Your task to perform on an android device: delete browsing data in the chrome app Image 0: 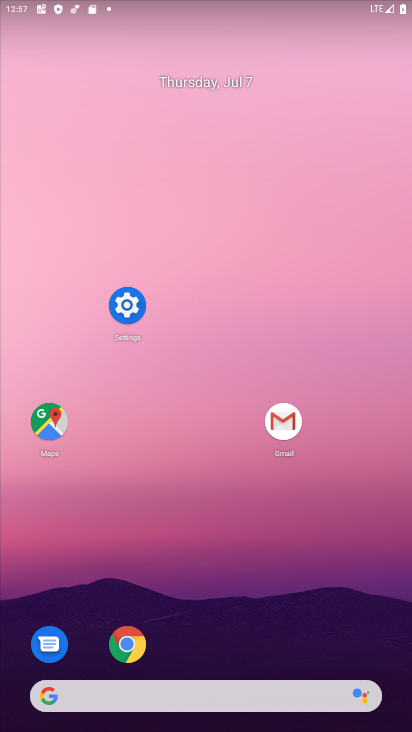
Step 0: click (123, 646)
Your task to perform on an android device: delete browsing data in the chrome app Image 1: 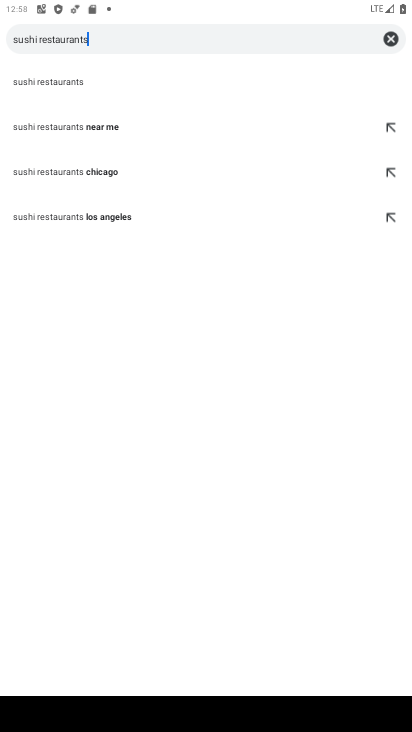
Step 1: press home button
Your task to perform on an android device: delete browsing data in the chrome app Image 2: 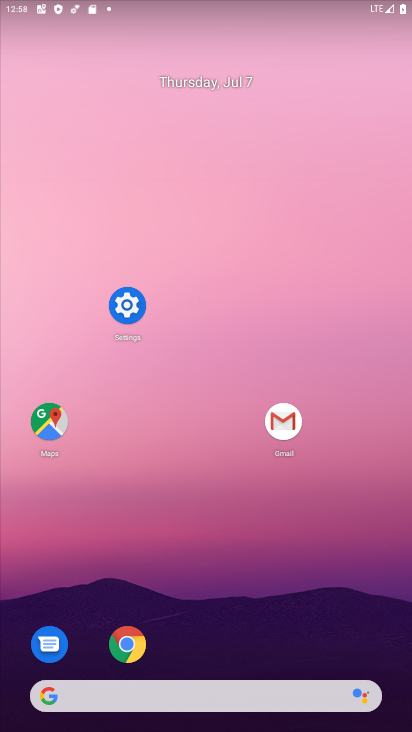
Step 2: click (128, 640)
Your task to perform on an android device: delete browsing data in the chrome app Image 3: 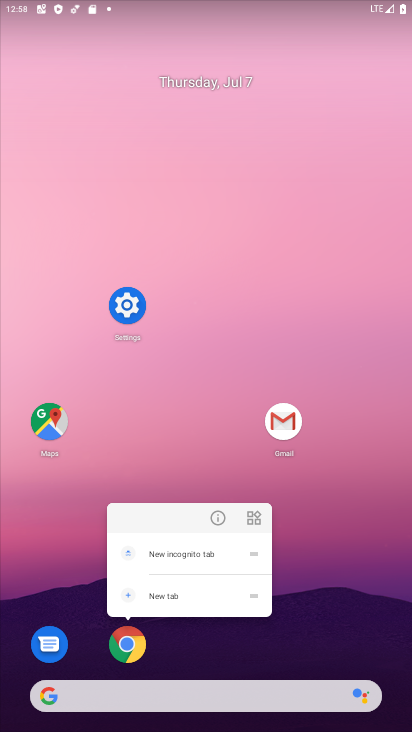
Step 3: click (128, 639)
Your task to perform on an android device: delete browsing data in the chrome app Image 4: 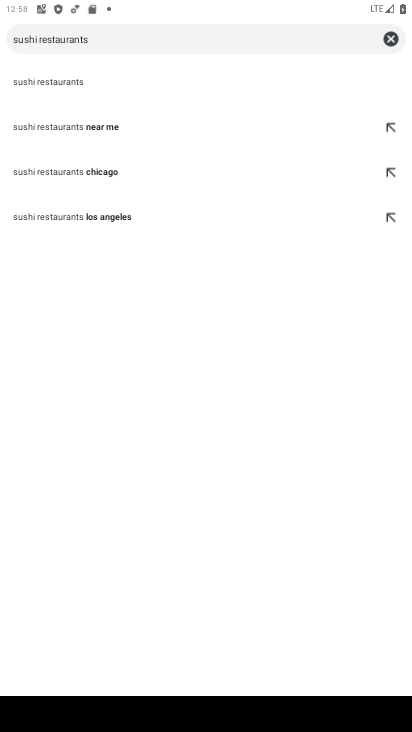
Step 4: click (389, 42)
Your task to perform on an android device: delete browsing data in the chrome app Image 5: 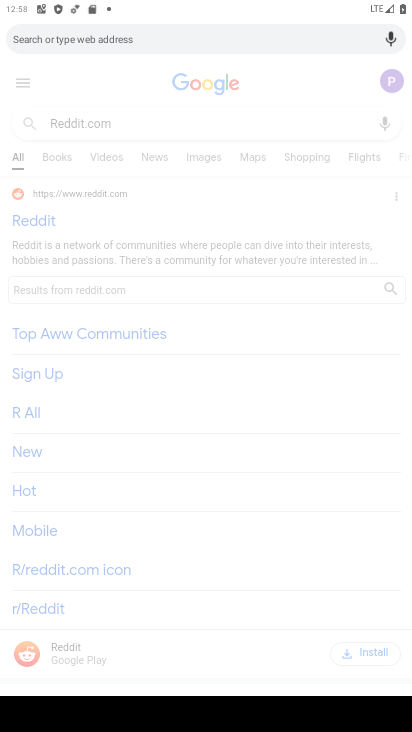
Step 5: press back button
Your task to perform on an android device: delete browsing data in the chrome app Image 6: 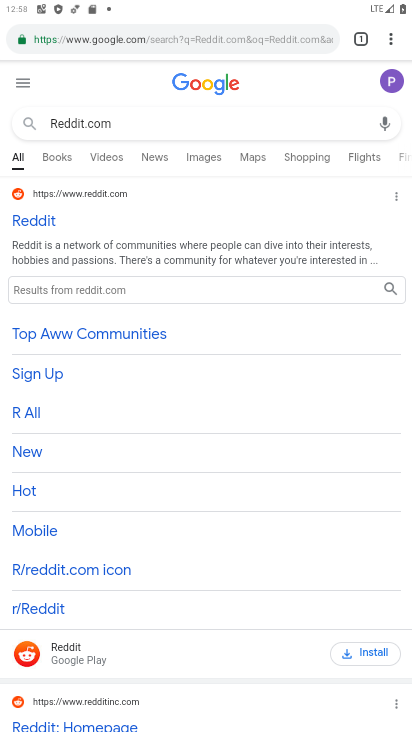
Step 6: click (388, 31)
Your task to perform on an android device: delete browsing data in the chrome app Image 7: 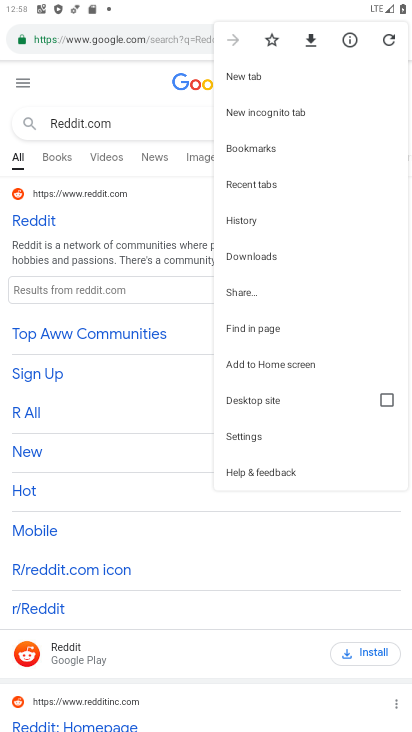
Step 7: click (251, 219)
Your task to perform on an android device: delete browsing data in the chrome app Image 8: 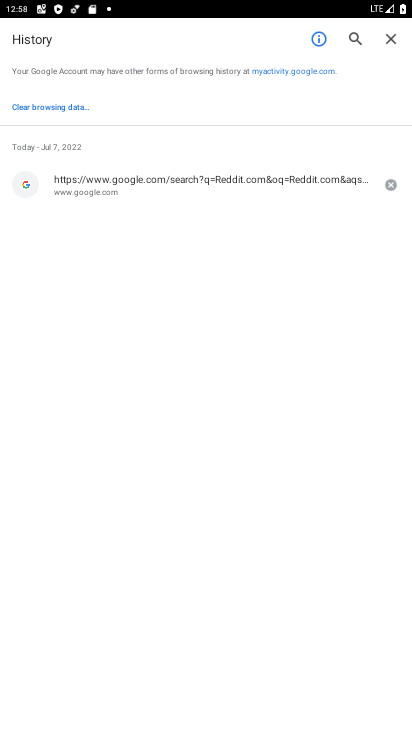
Step 8: click (40, 104)
Your task to perform on an android device: delete browsing data in the chrome app Image 9: 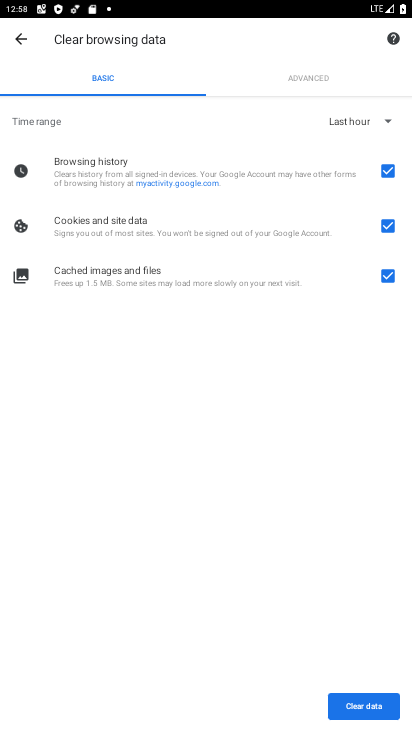
Step 9: click (352, 704)
Your task to perform on an android device: delete browsing data in the chrome app Image 10: 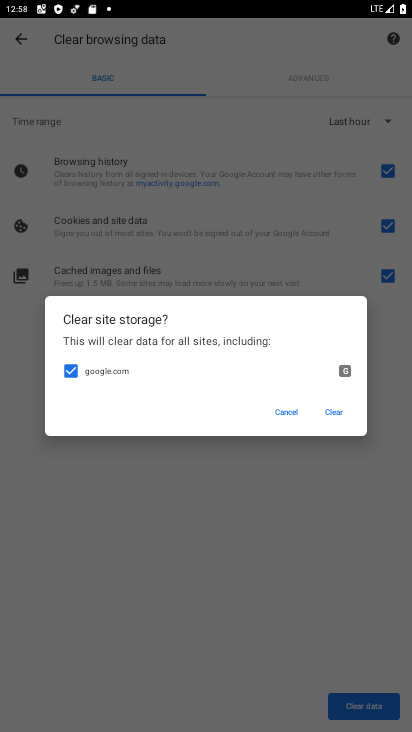
Step 10: click (334, 413)
Your task to perform on an android device: delete browsing data in the chrome app Image 11: 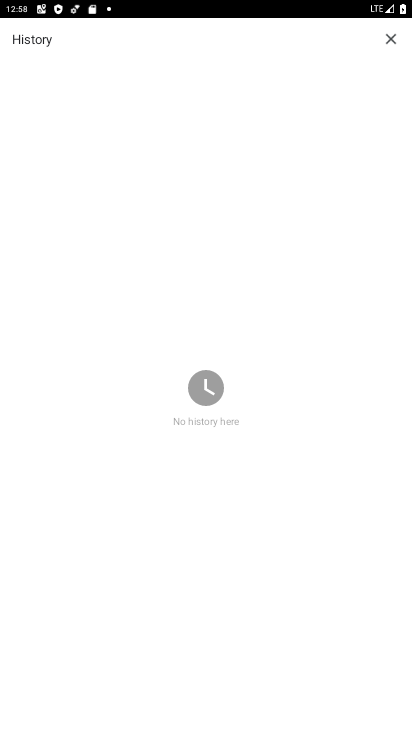
Step 11: task complete